Your task to perform on an android device: turn on sleep mode Image 0: 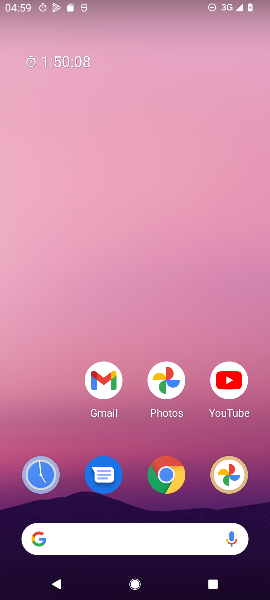
Step 0: press home button
Your task to perform on an android device: turn on sleep mode Image 1: 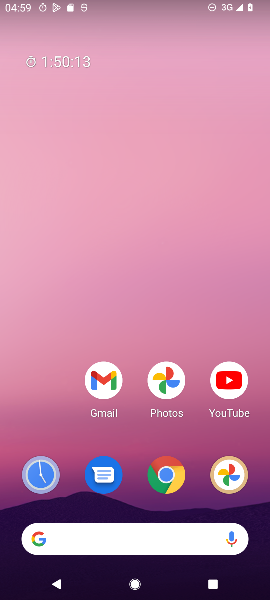
Step 1: drag from (73, 446) to (73, 267)
Your task to perform on an android device: turn on sleep mode Image 2: 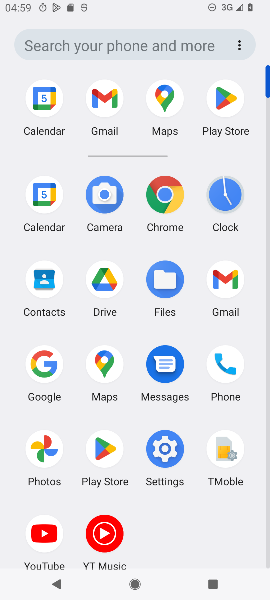
Step 2: click (162, 447)
Your task to perform on an android device: turn on sleep mode Image 3: 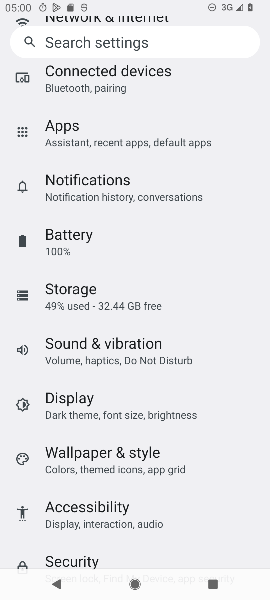
Step 3: drag from (220, 189) to (225, 251)
Your task to perform on an android device: turn on sleep mode Image 4: 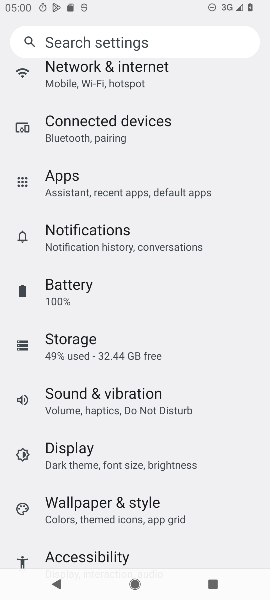
Step 4: drag from (229, 146) to (231, 243)
Your task to perform on an android device: turn on sleep mode Image 5: 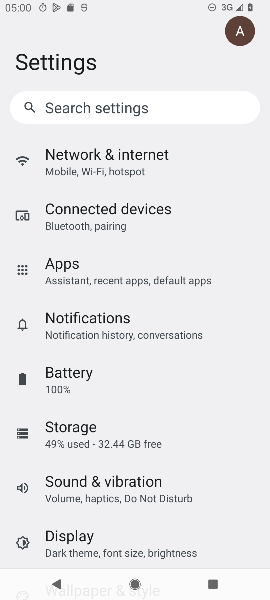
Step 5: drag from (231, 158) to (233, 277)
Your task to perform on an android device: turn on sleep mode Image 6: 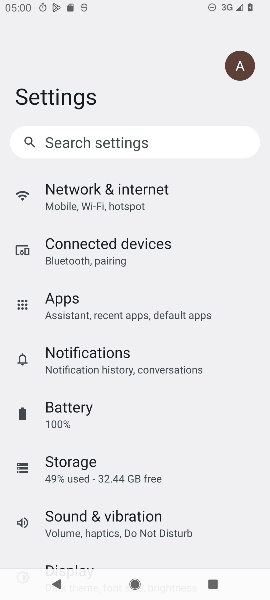
Step 6: drag from (220, 398) to (232, 317)
Your task to perform on an android device: turn on sleep mode Image 7: 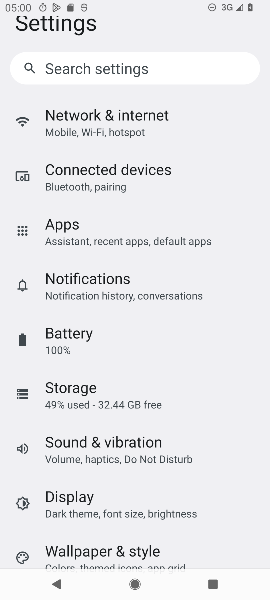
Step 7: drag from (210, 443) to (223, 354)
Your task to perform on an android device: turn on sleep mode Image 8: 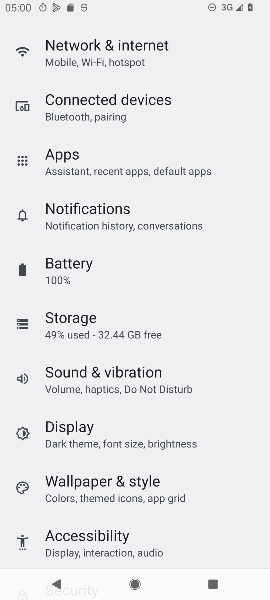
Step 8: drag from (221, 459) to (221, 361)
Your task to perform on an android device: turn on sleep mode Image 9: 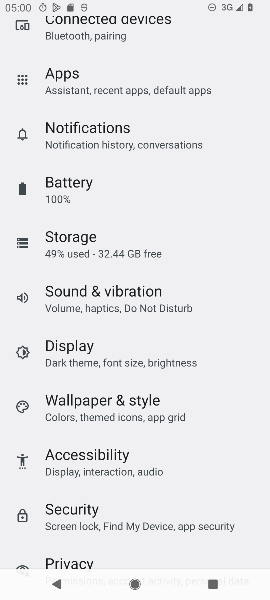
Step 9: drag from (195, 475) to (206, 398)
Your task to perform on an android device: turn on sleep mode Image 10: 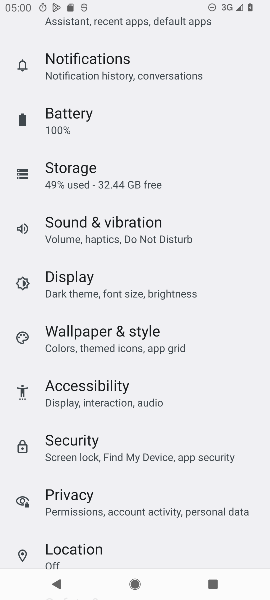
Step 10: drag from (193, 468) to (203, 378)
Your task to perform on an android device: turn on sleep mode Image 11: 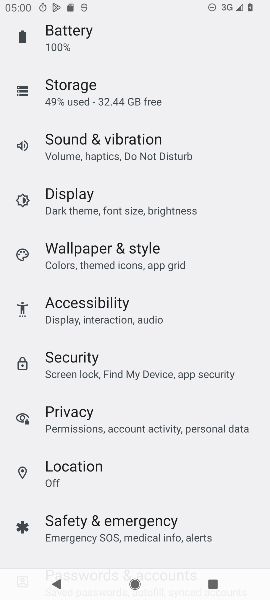
Step 11: drag from (212, 417) to (211, 352)
Your task to perform on an android device: turn on sleep mode Image 12: 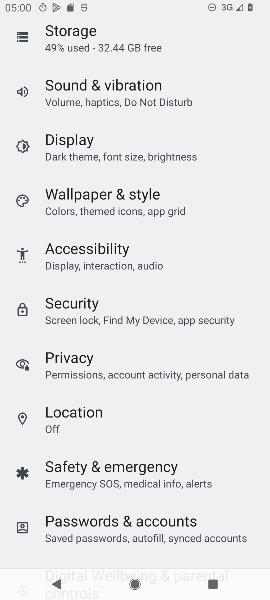
Step 12: click (169, 143)
Your task to perform on an android device: turn on sleep mode Image 13: 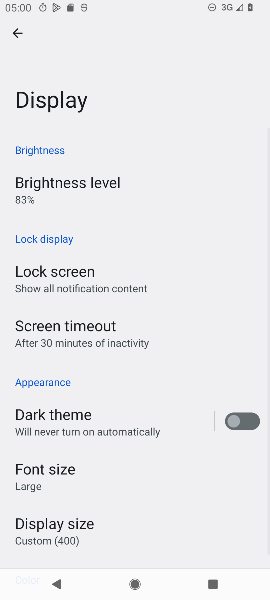
Step 13: task complete